Your task to perform on an android device: Open eBay Image 0: 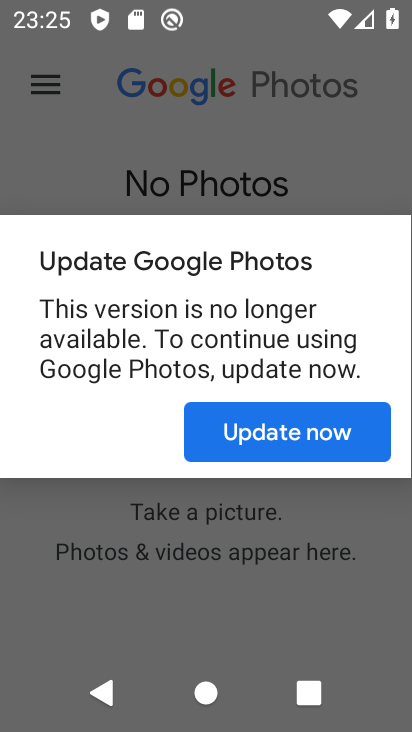
Step 0: press home button
Your task to perform on an android device: Open eBay Image 1: 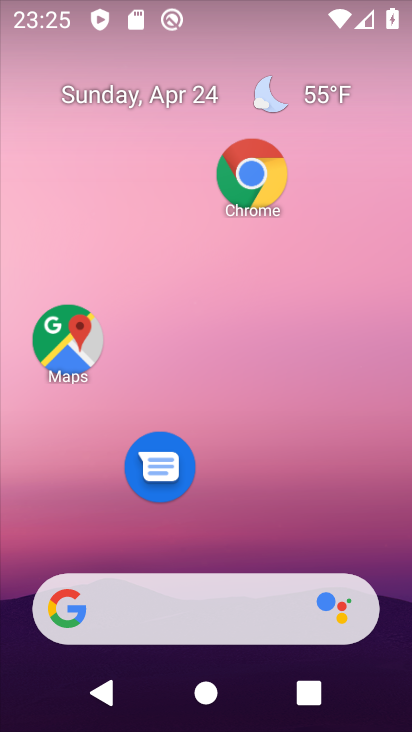
Step 1: drag from (294, 405) to (326, 3)
Your task to perform on an android device: Open eBay Image 2: 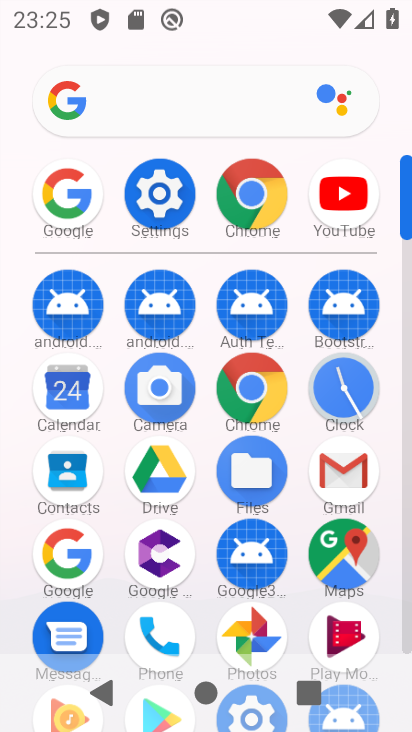
Step 2: click (75, 193)
Your task to perform on an android device: Open eBay Image 3: 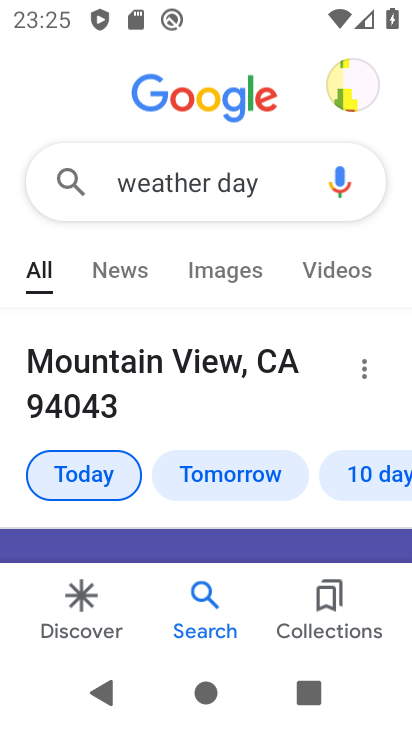
Step 3: click (224, 179)
Your task to perform on an android device: Open eBay Image 4: 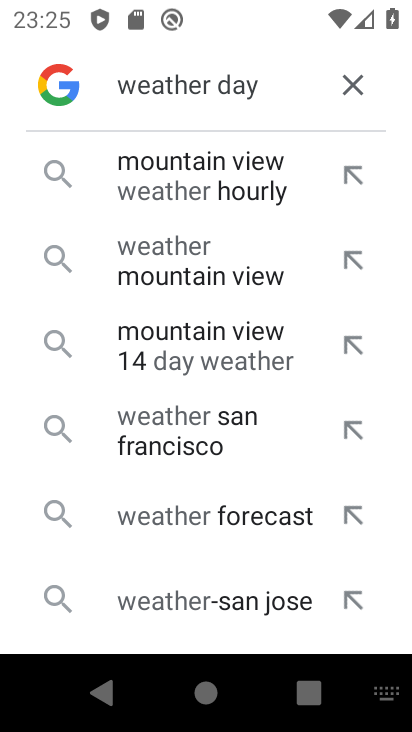
Step 4: click (357, 83)
Your task to perform on an android device: Open eBay Image 5: 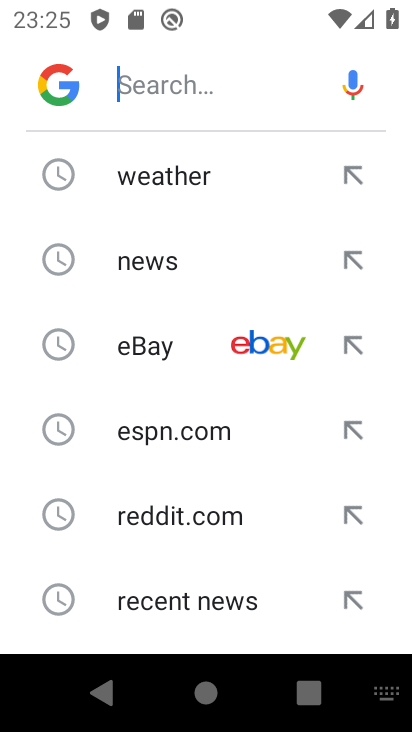
Step 5: click (182, 352)
Your task to perform on an android device: Open eBay Image 6: 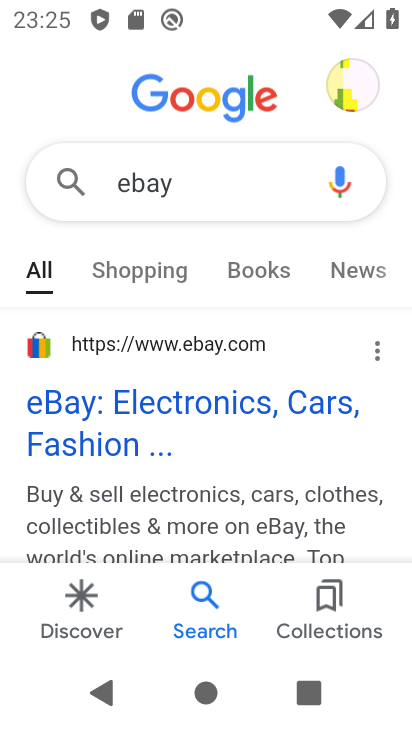
Step 6: task complete